Your task to perform on an android device: Search for pizza restaurants on Maps Image 0: 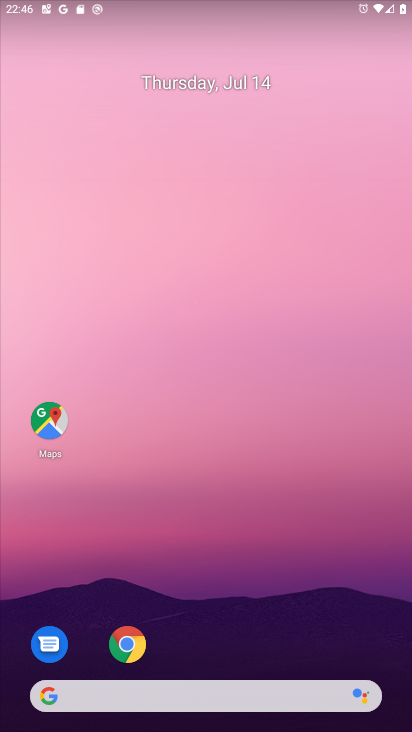
Step 0: click (51, 430)
Your task to perform on an android device: Search for pizza restaurants on Maps Image 1: 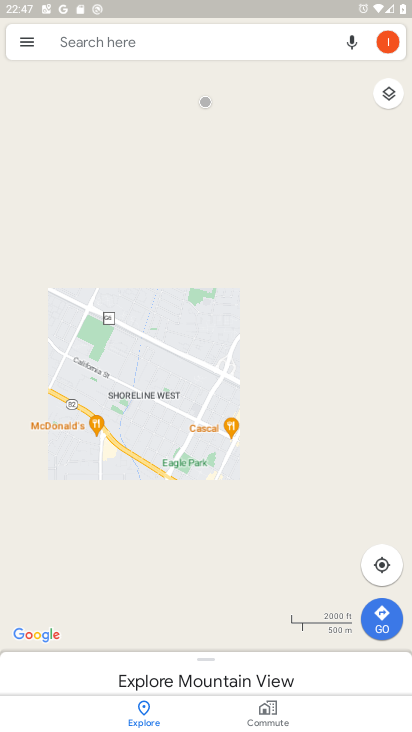
Step 1: click (115, 45)
Your task to perform on an android device: Search for pizza restaurants on Maps Image 2: 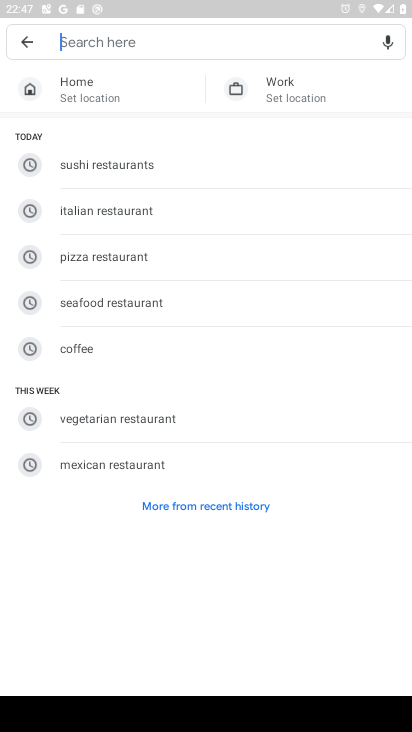
Step 2: click (127, 261)
Your task to perform on an android device: Search for pizza restaurants on Maps Image 3: 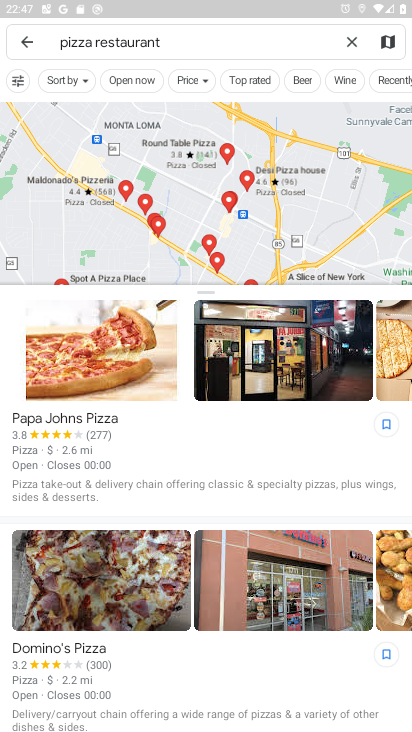
Step 3: task complete